Your task to perform on an android device: Go to CNN.com Image 0: 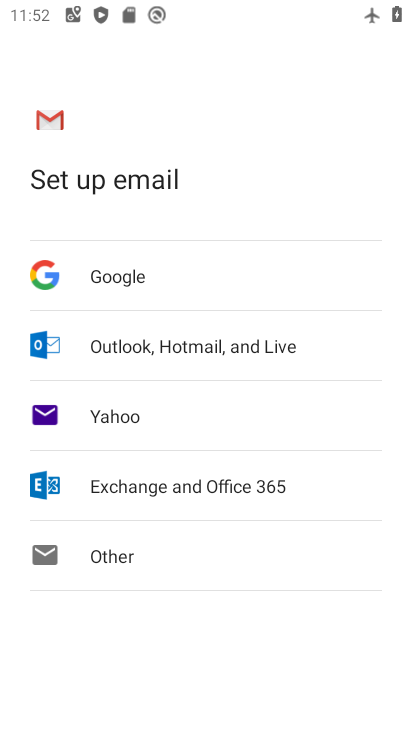
Step 0: press home button
Your task to perform on an android device: Go to CNN.com Image 1: 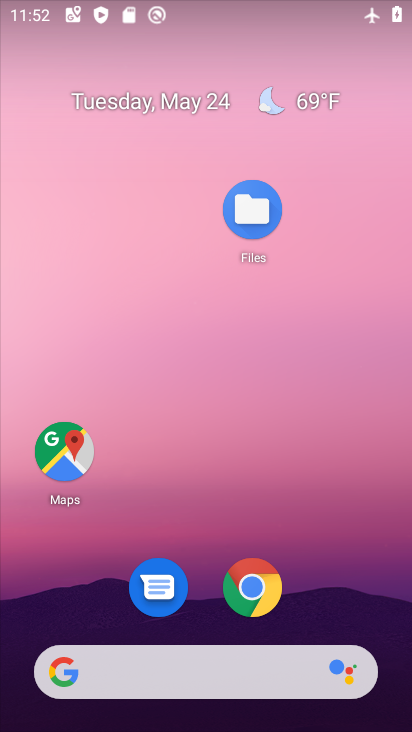
Step 1: drag from (218, 517) to (145, 266)
Your task to perform on an android device: Go to CNN.com Image 2: 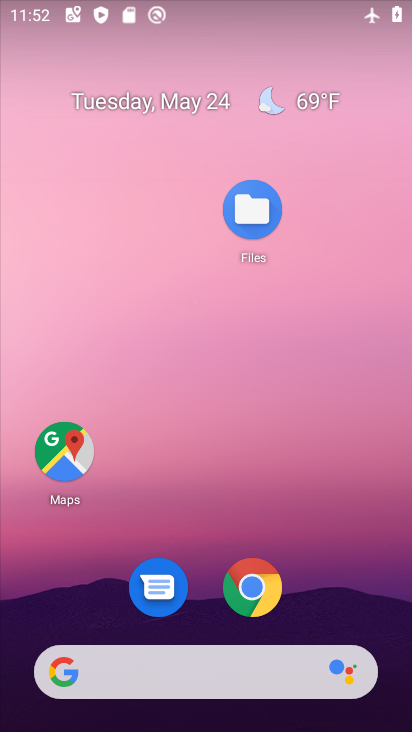
Step 2: click (261, 596)
Your task to perform on an android device: Go to CNN.com Image 3: 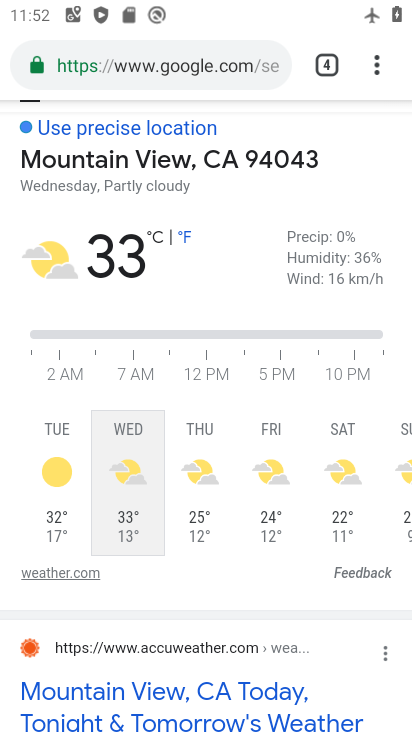
Step 3: click (329, 70)
Your task to perform on an android device: Go to CNN.com Image 4: 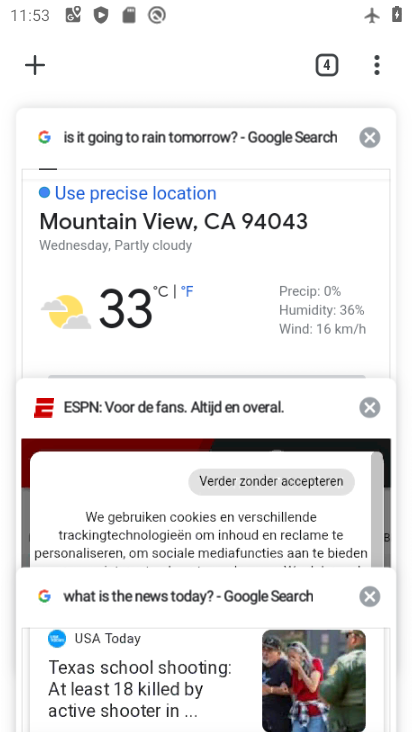
Step 4: click (32, 64)
Your task to perform on an android device: Go to CNN.com Image 5: 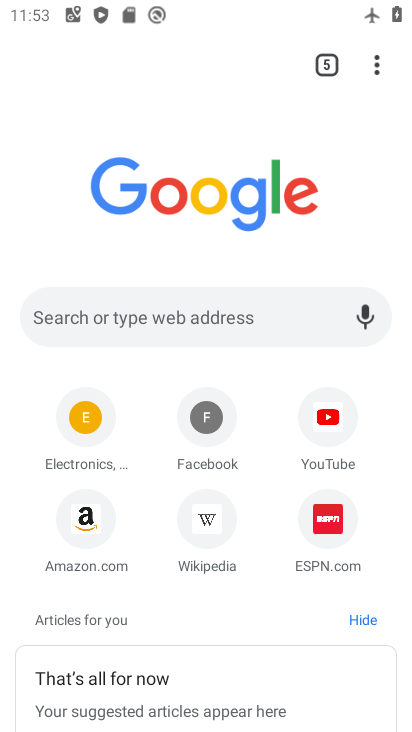
Step 5: click (144, 313)
Your task to perform on an android device: Go to CNN.com Image 6: 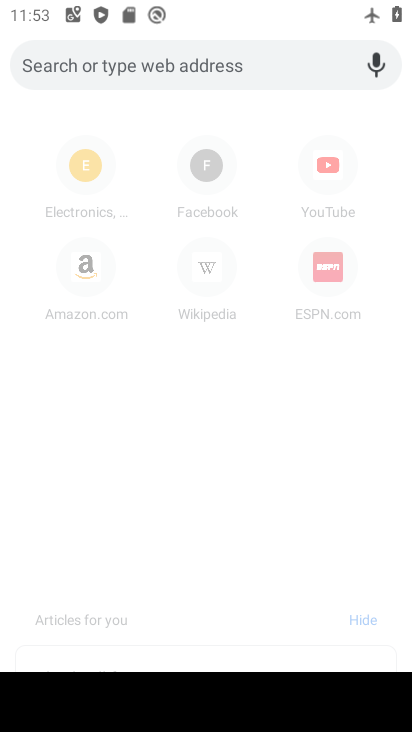
Step 6: type "cnn.com"
Your task to perform on an android device: Go to CNN.com Image 7: 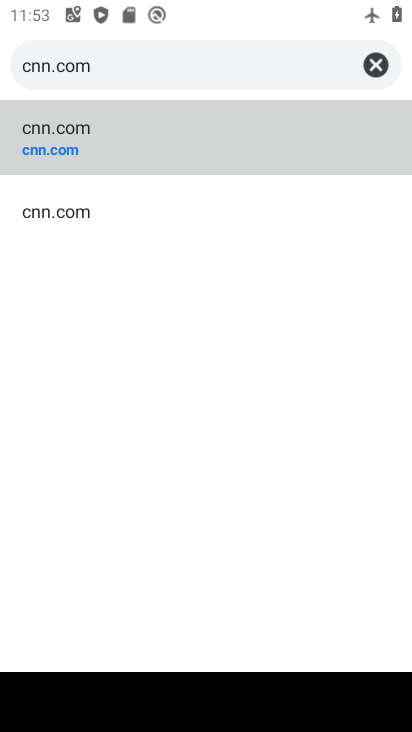
Step 7: click (49, 136)
Your task to perform on an android device: Go to CNN.com Image 8: 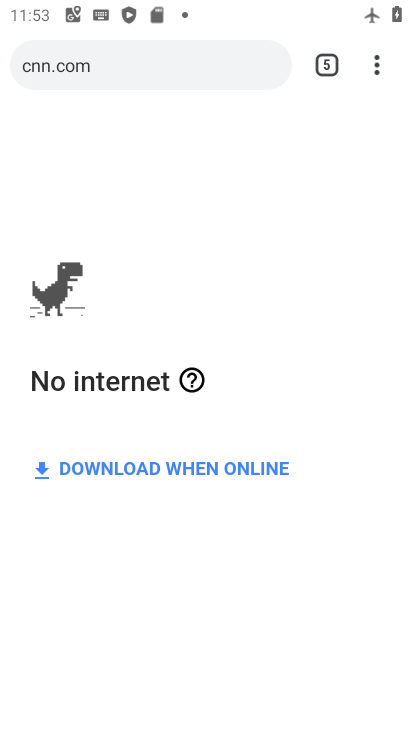
Step 8: task complete